Your task to perform on an android device: open wifi settings Image 0: 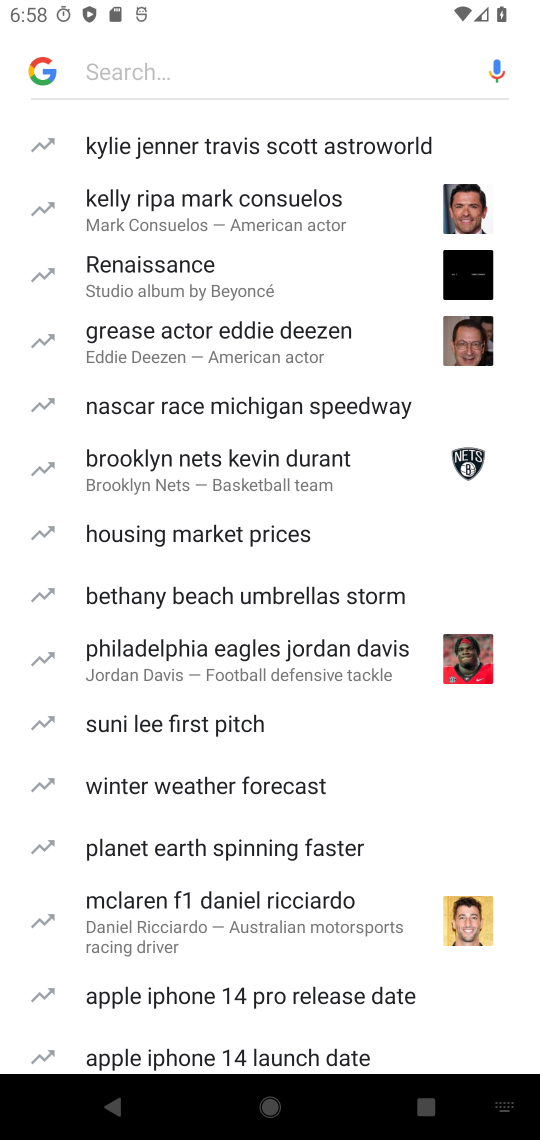
Step 0: press home button
Your task to perform on an android device: open wifi settings Image 1: 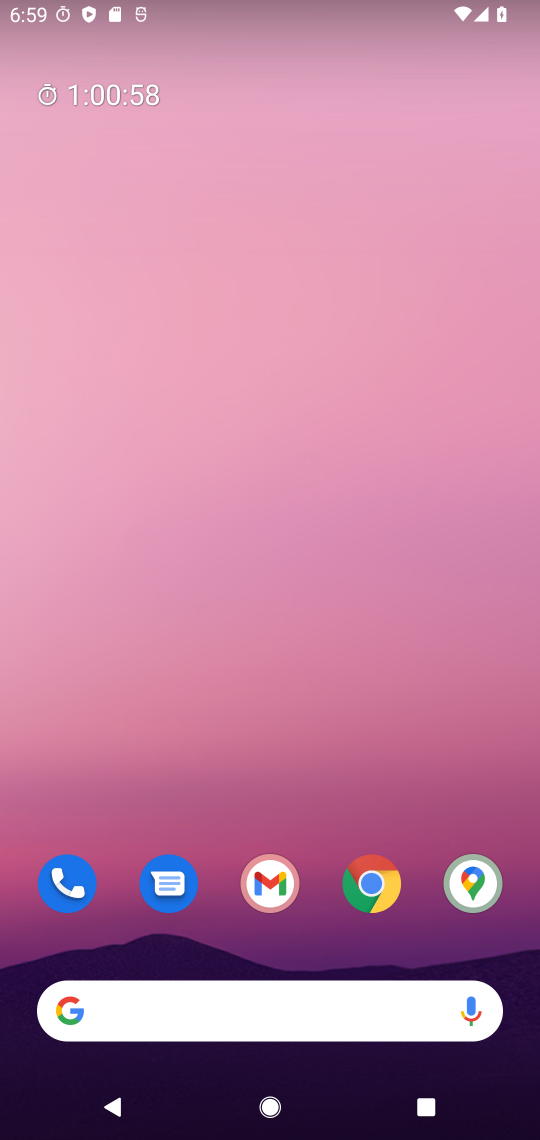
Step 1: drag from (287, 719) to (287, 232)
Your task to perform on an android device: open wifi settings Image 2: 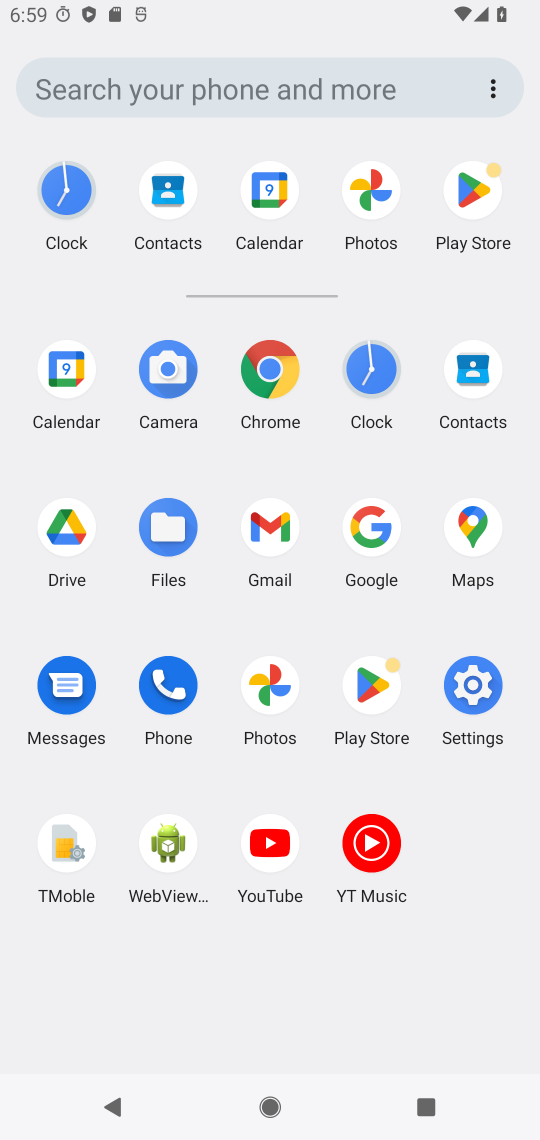
Step 2: click (465, 700)
Your task to perform on an android device: open wifi settings Image 3: 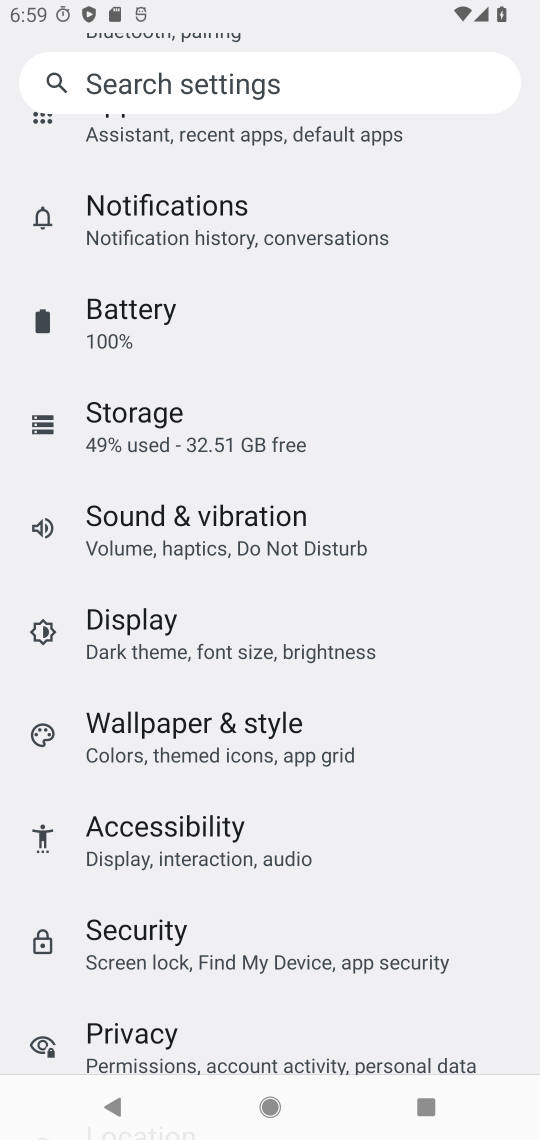
Step 3: drag from (322, 284) to (308, 779)
Your task to perform on an android device: open wifi settings Image 4: 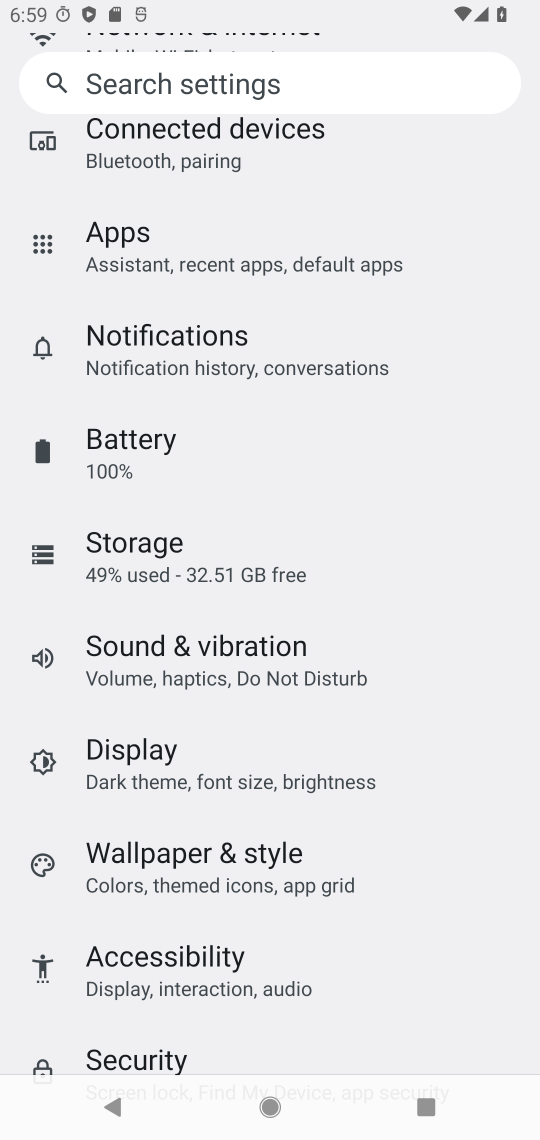
Step 4: drag from (330, 307) to (321, 764)
Your task to perform on an android device: open wifi settings Image 5: 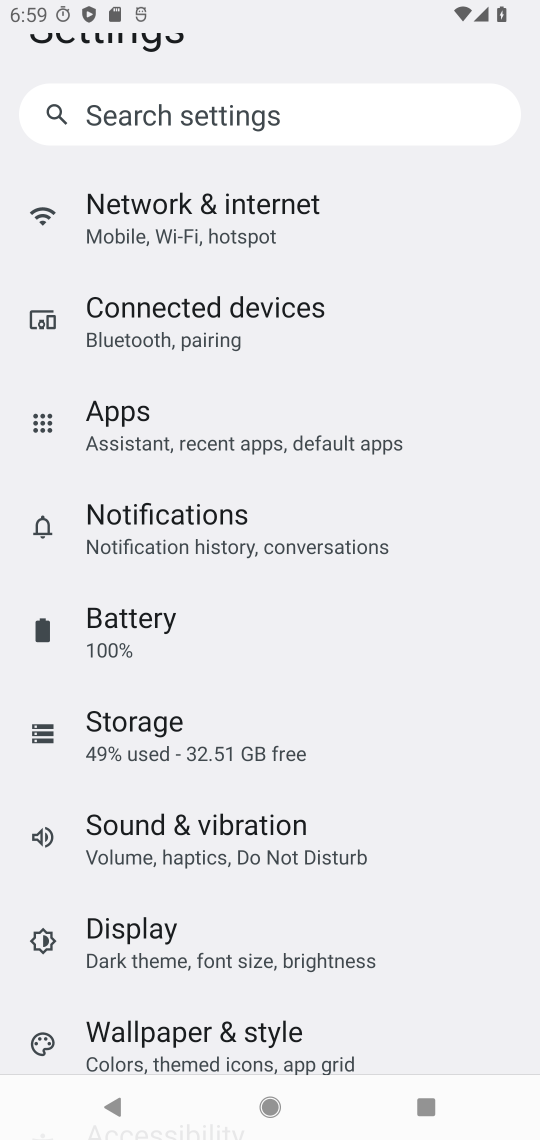
Step 5: click (241, 215)
Your task to perform on an android device: open wifi settings Image 6: 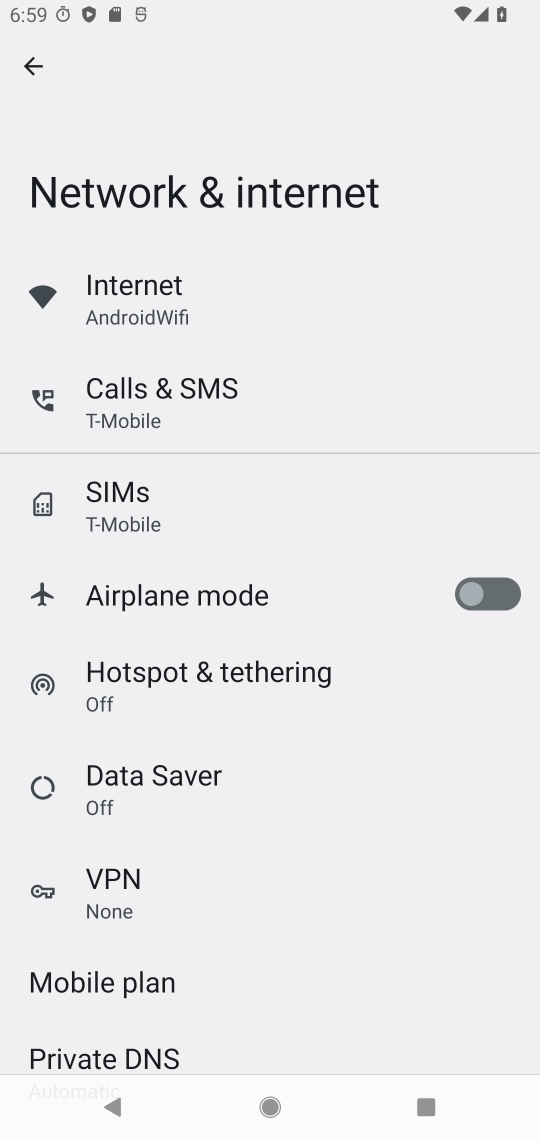
Step 6: task complete